Your task to perform on an android device: Open calendar and show me the second week of next month Image 0: 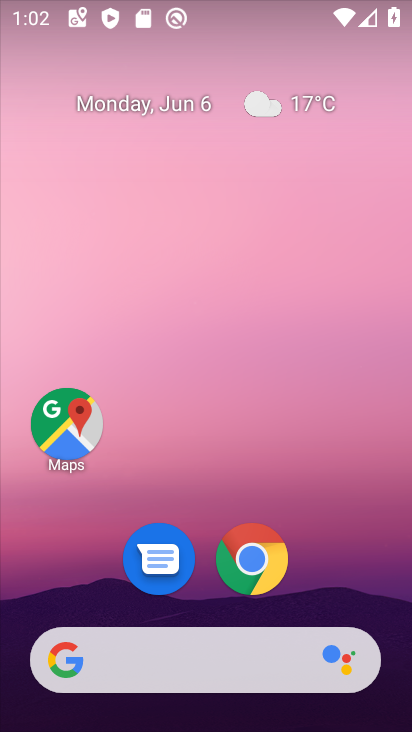
Step 0: drag from (363, 547) to (323, 106)
Your task to perform on an android device: Open calendar and show me the second week of next month Image 1: 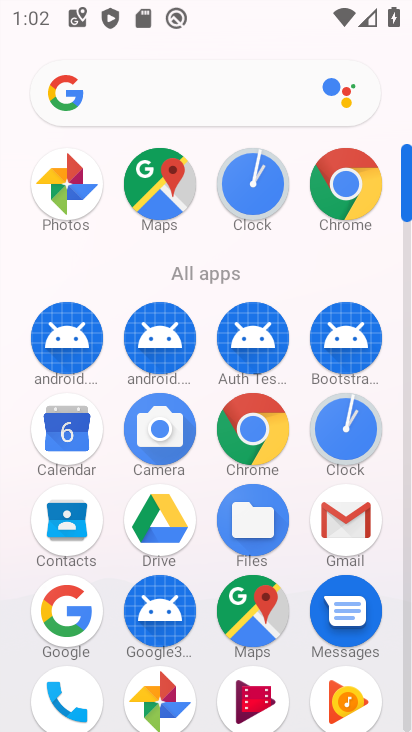
Step 1: click (56, 445)
Your task to perform on an android device: Open calendar and show me the second week of next month Image 2: 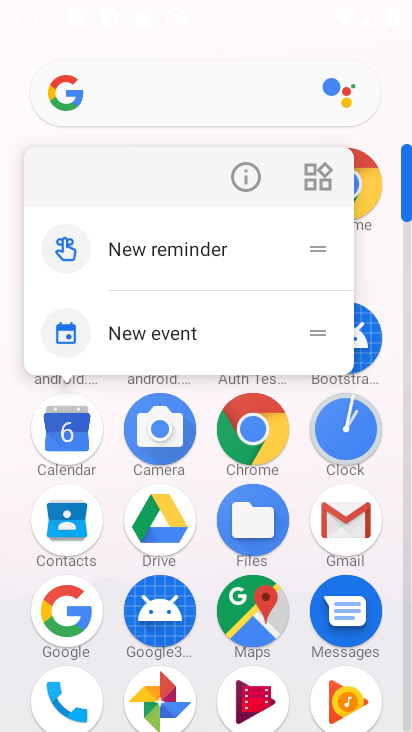
Step 2: click (72, 453)
Your task to perform on an android device: Open calendar and show me the second week of next month Image 3: 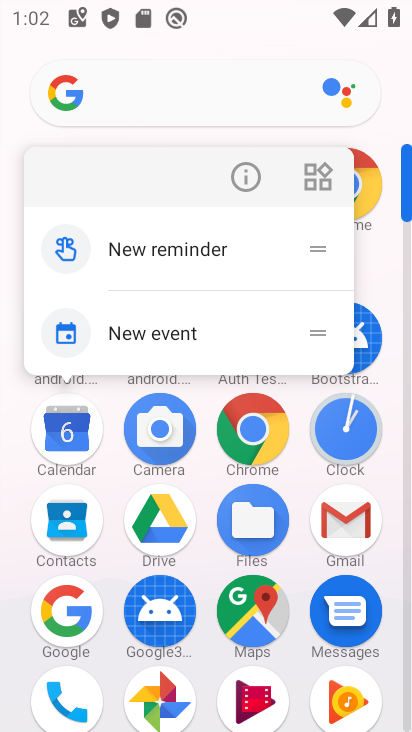
Step 3: click (55, 442)
Your task to perform on an android device: Open calendar and show me the second week of next month Image 4: 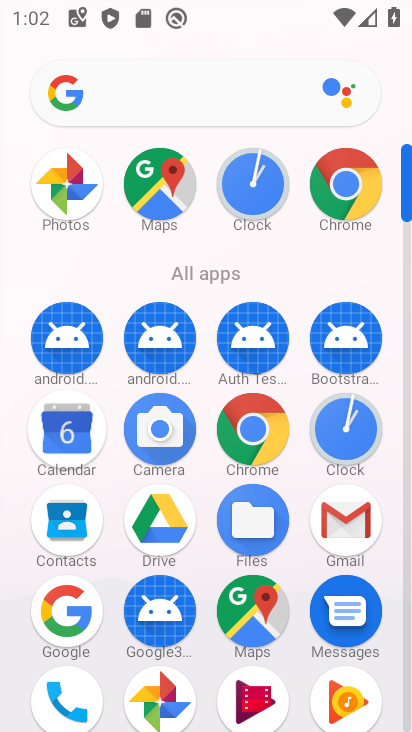
Step 4: click (49, 455)
Your task to perform on an android device: Open calendar and show me the second week of next month Image 5: 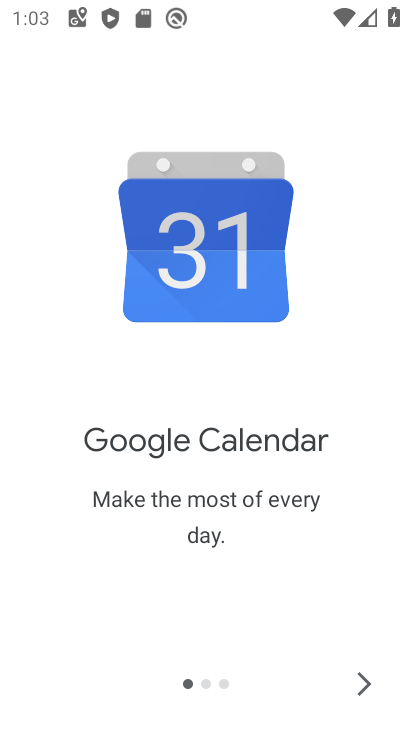
Step 5: click (372, 688)
Your task to perform on an android device: Open calendar and show me the second week of next month Image 6: 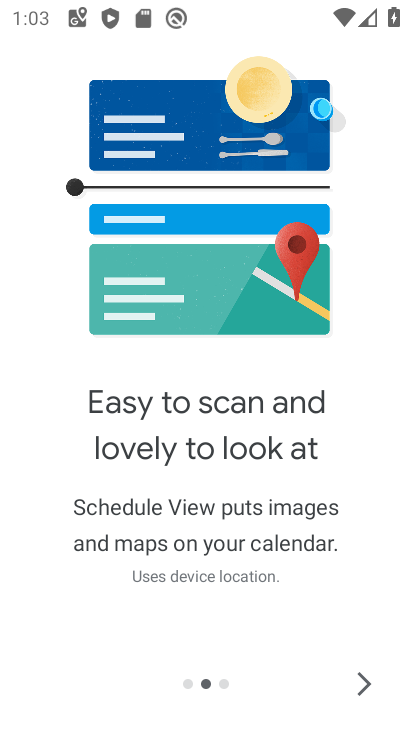
Step 6: click (370, 687)
Your task to perform on an android device: Open calendar and show me the second week of next month Image 7: 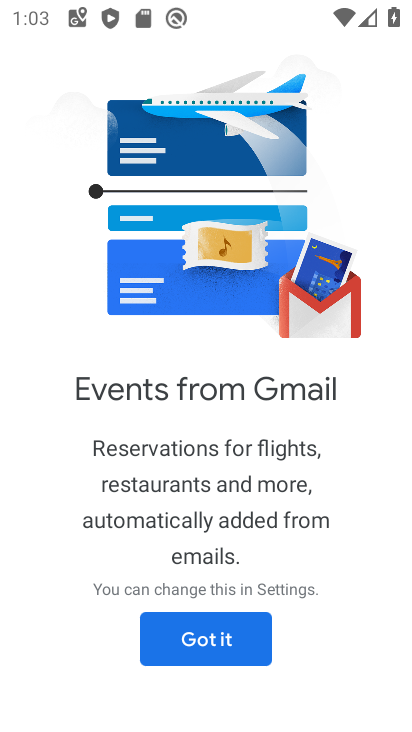
Step 7: click (180, 653)
Your task to perform on an android device: Open calendar and show me the second week of next month Image 8: 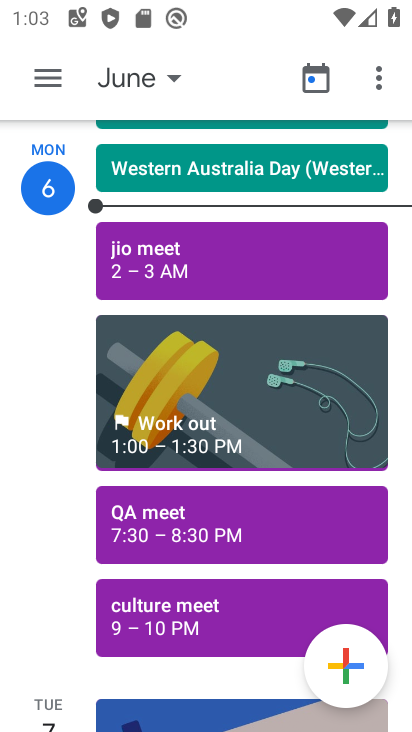
Step 8: click (120, 80)
Your task to perform on an android device: Open calendar and show me the second week of next month Image 9: 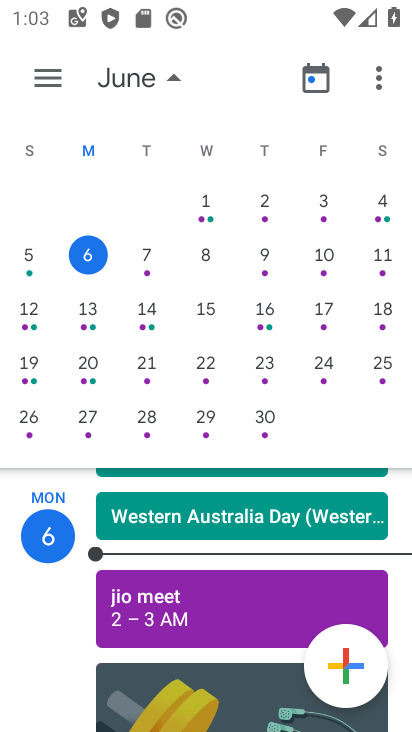
Step 9: drag from (340, 361) to (3, 347)
Your task to perform on an android device: Open calendar and show me the second week of next month Image 10: 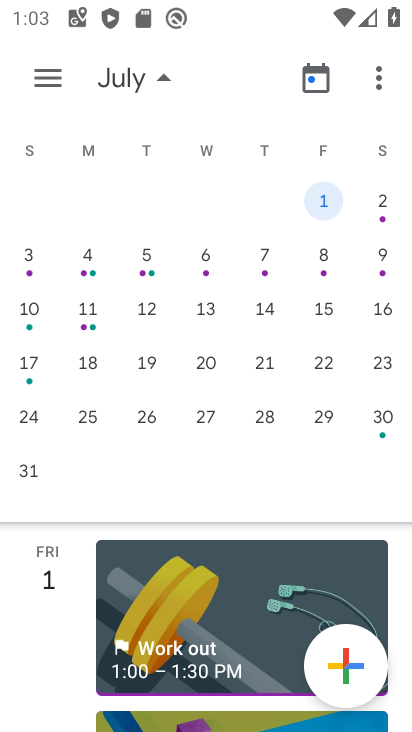
Step 10: click (31, 264)
Your task to perform on an android device: Open calendar and show me the second week of next month Image 11: 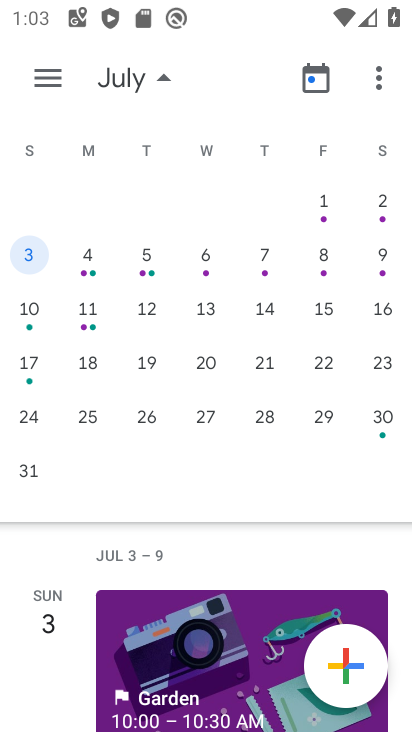
Step 11: task complete